Your task to perform on an android device: Open calendar and show me the third week of next month Image 0: 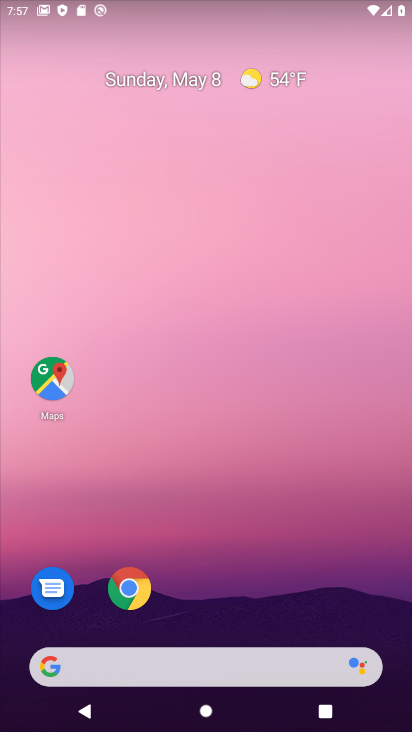
Step 0: drag from (298, 597) to (263, 77)
Your task to perform on an android device: Open calendar and show me the third week of next month Image 1: 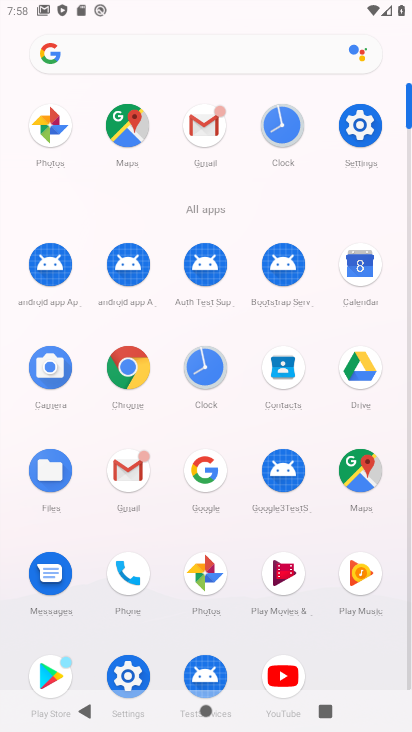
Step 1: click (365, 263)
Your task to perform on an android device: Open calendar and show me the third week of next month Image 2: 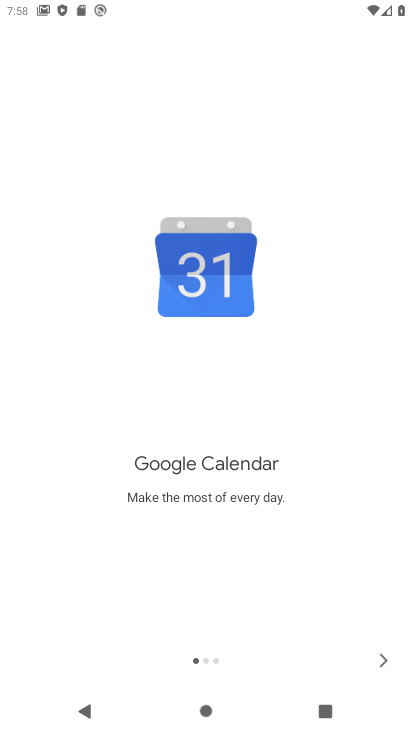
Step 2: click (382, 663)
Your task to perform on an android device: Open calendar and show me the third week of next month Image 3: 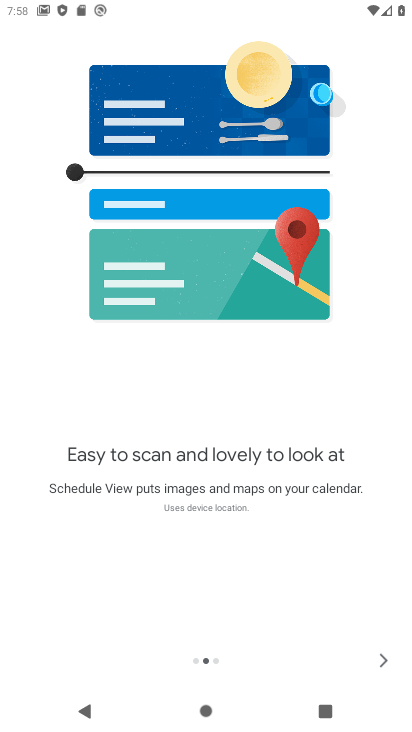
Step 3: click (381, 663)
Your task to perform on an android device: Open calendar and show me the third week of next month Image 4: 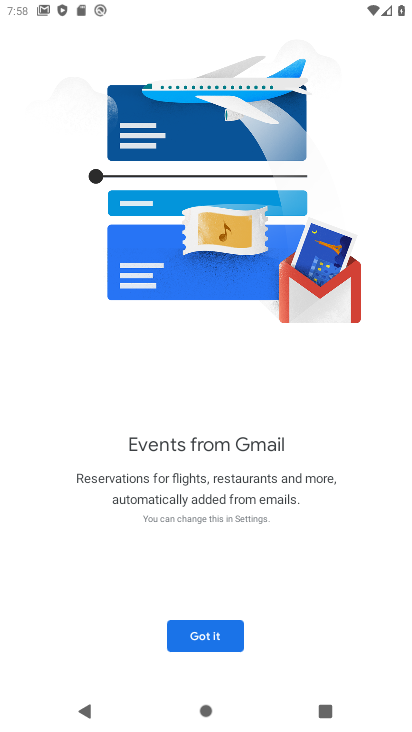
Step 4: click (381, 663)
Your task to perform on an android device: Open calendar and show me the third week of next month Image 5: 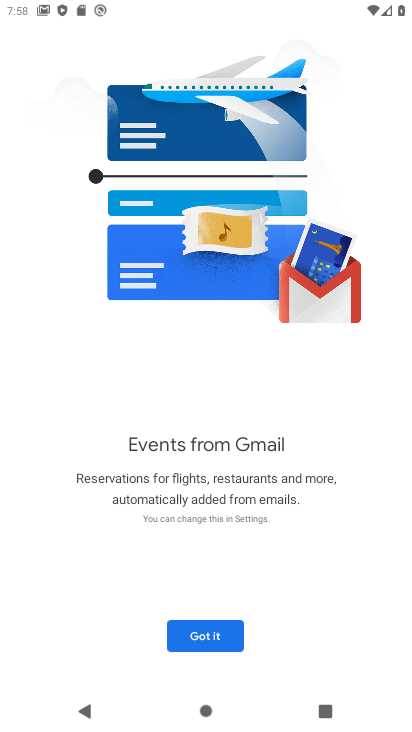
Step 5: click (219, 642)
Your task to perform on an android device: Open calendar and show me the third week of next month Image 6: 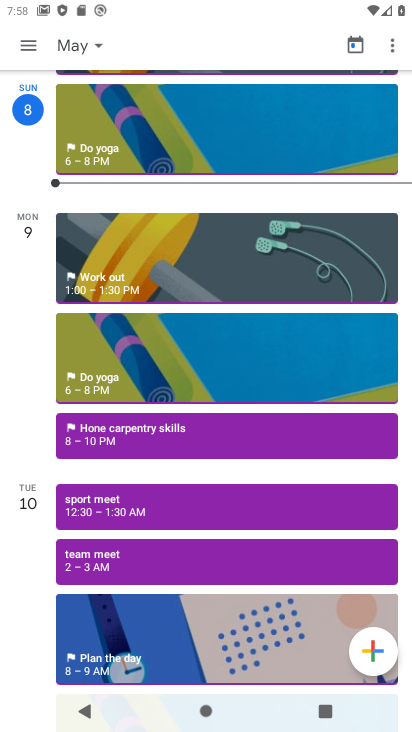
Step 6: click (71, 34)
Your task to perform on an android device: Open calendar and show me the third week of next month Image 7: 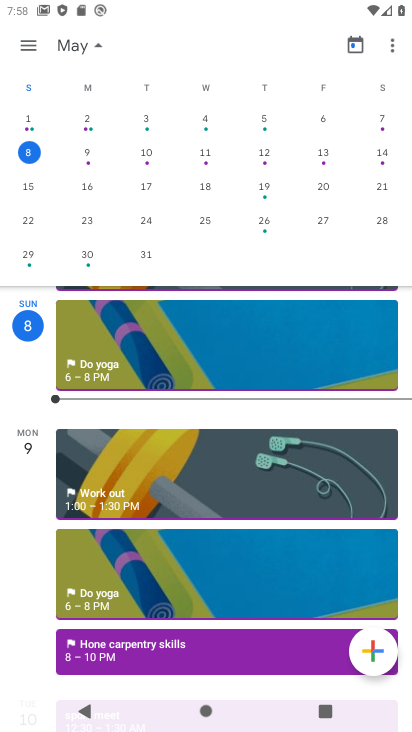
Step 7: drag from (338, 196) to (8, 154)
Your task to perform on an android device: Open calendar and show me the third week of next month Image 8: 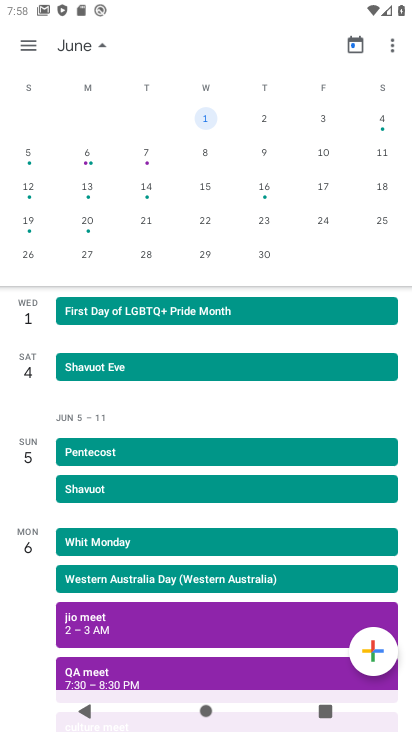
Step 8: click (89, 216)
Your task to perform on an android device: Open calendar and show me the third week of next month Image 9: 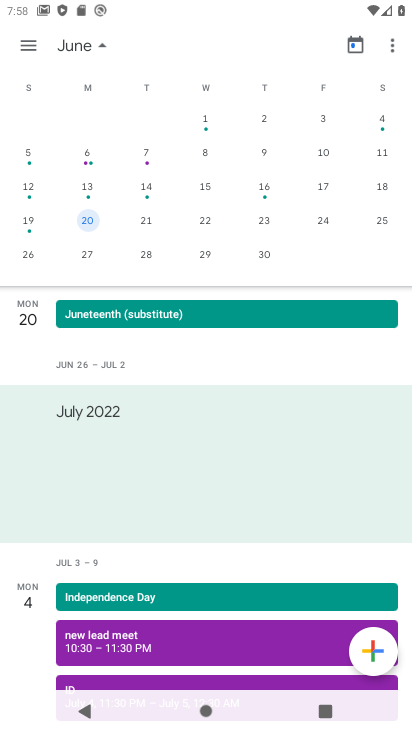
Step 9: click (29, 49)
Your task to perform on an android device: Open calendar and show me the third week of next month Image 10: 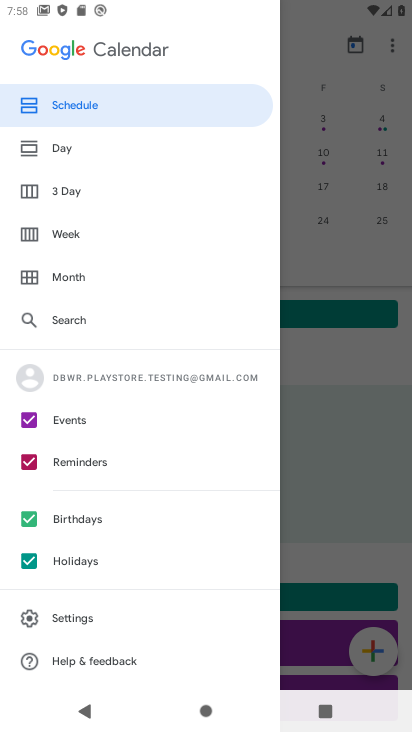
Step 10: click (98, 231)
Your task to perform on an android device: Open calendar and show me the third week of next month Image 11: 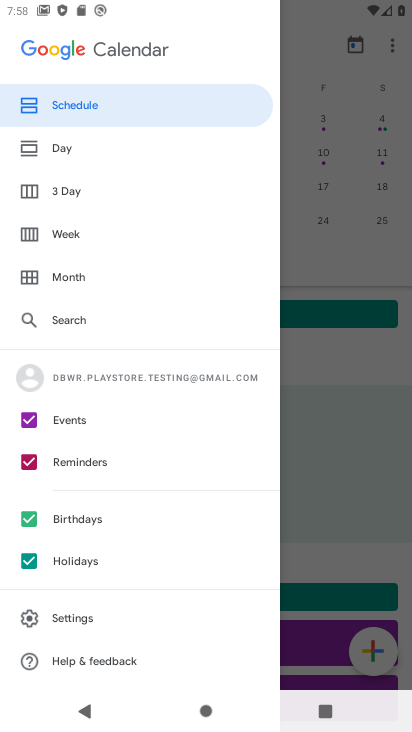
Step 11: click (96, 228)
Your task to perform on an android device: Open calendar and show me the third week of next month Image 12: 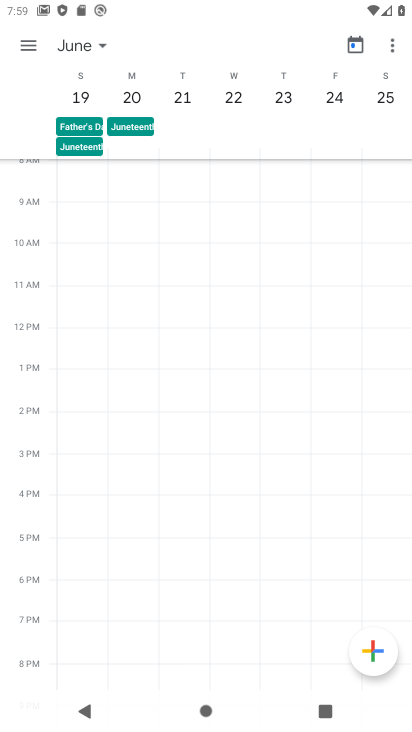
Step 12: task complete